Your task to perform on an android device: Empty the shopping cart on walmart.com. Image 0: 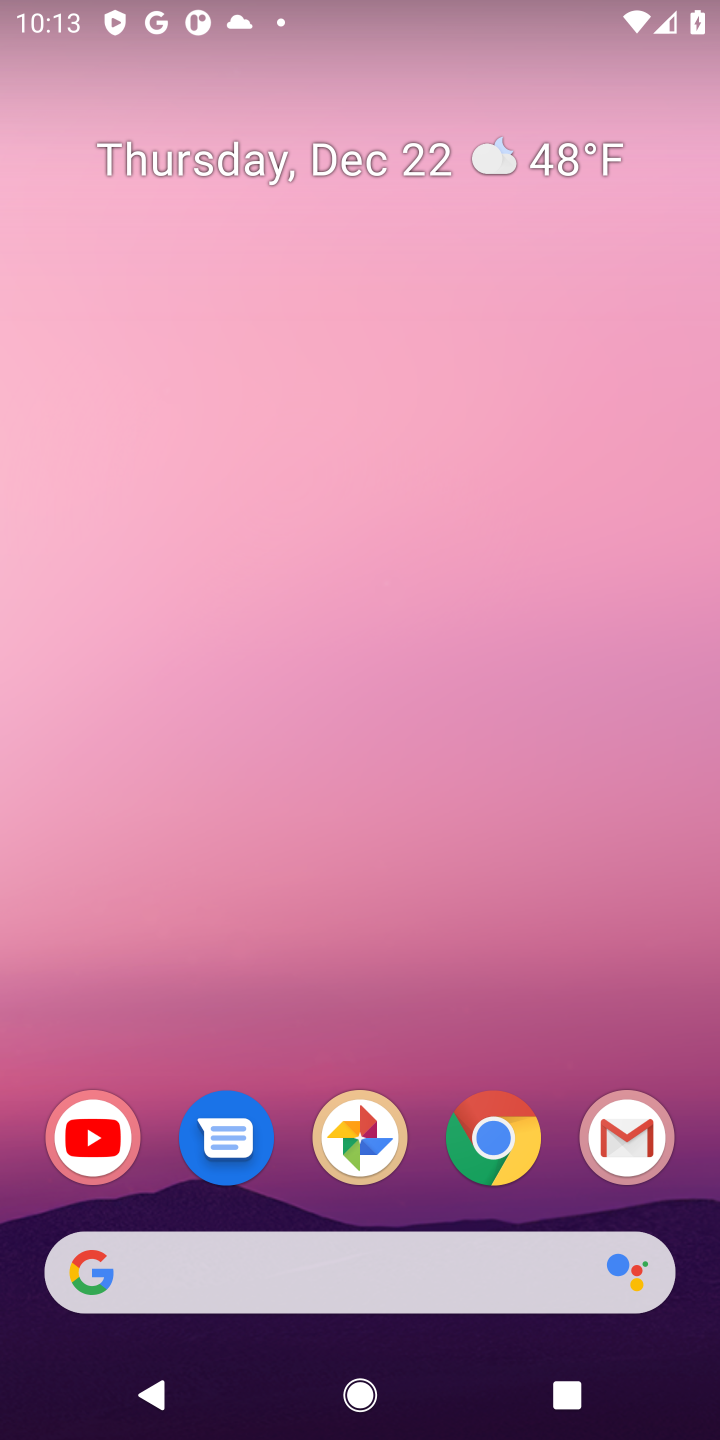
Step 0: click (493, 1136)
Your task to perform on an android device: Empty the shopping cart on walmart.com. Image 1: 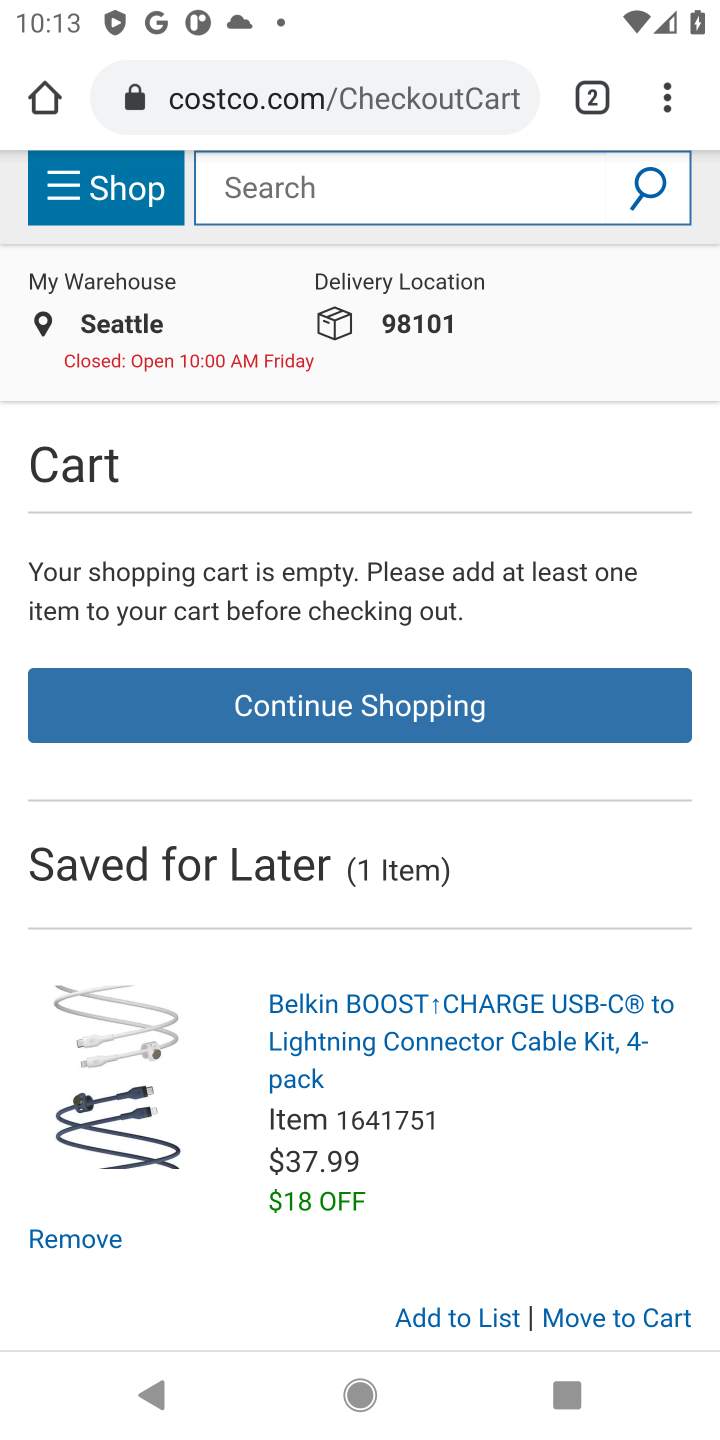
Step 1: click (276, 98)
Your task to perform on an android device: Empty the shopping cart on walmart.com. Image 2: 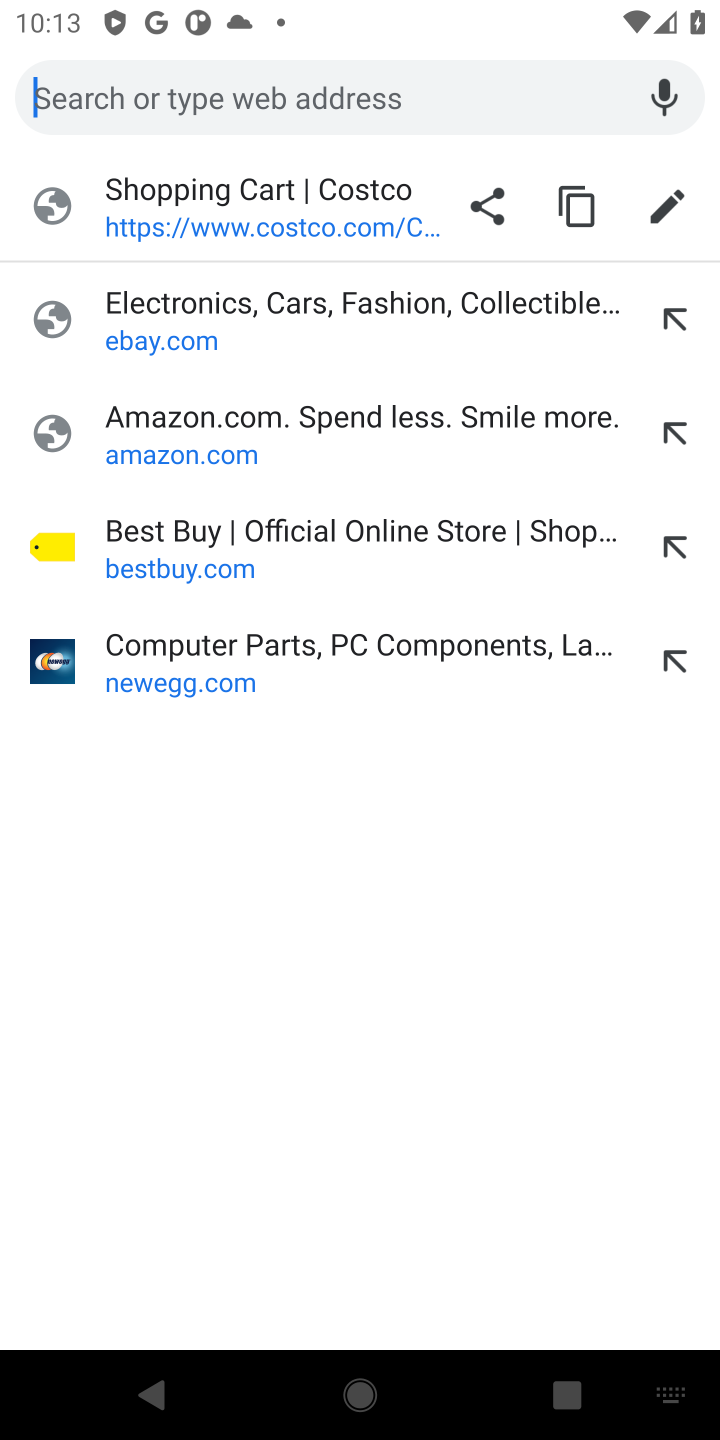
Step 2: type "walmart.com"
Your task to perform on an android device: Empty the shopping cart on walmart.com. Image 3: 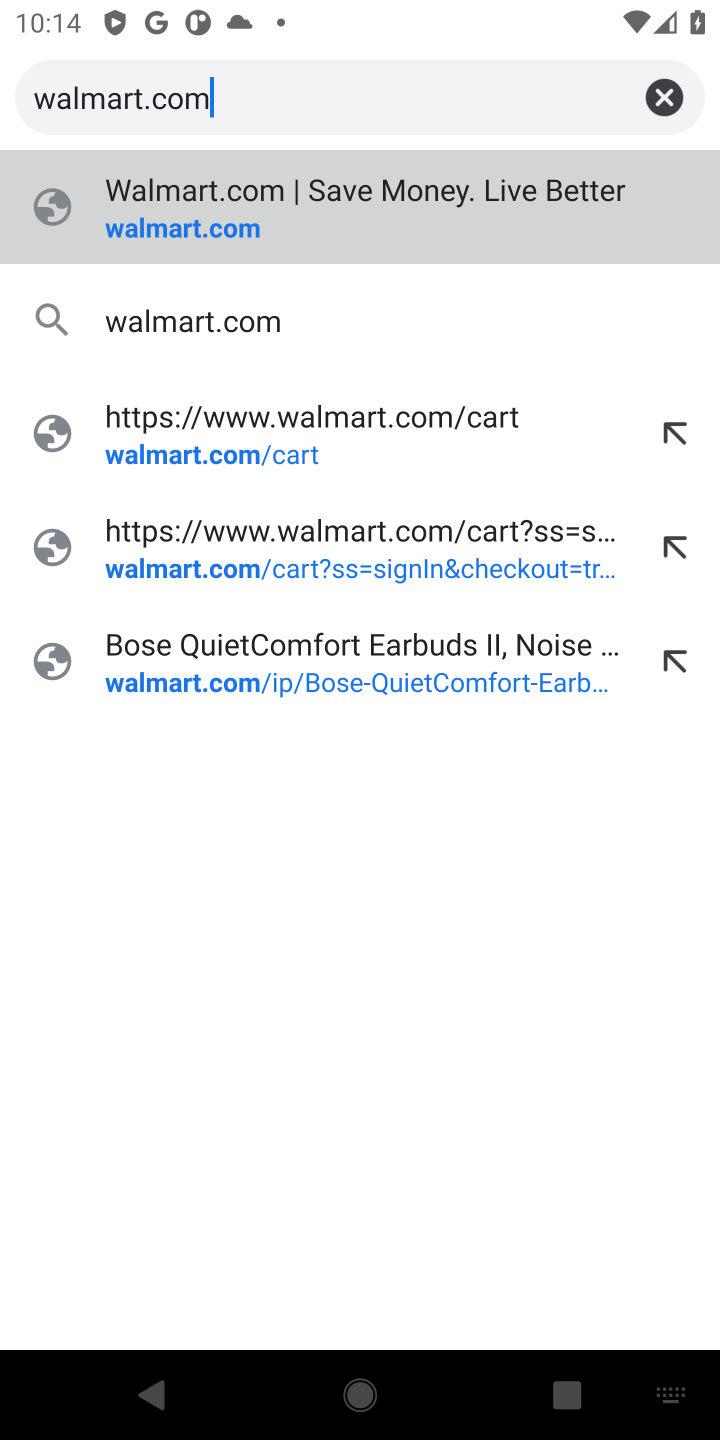
Step 3: click (147, 325)
Your task to perform on an android device: Empty the shopping cart on walmart.com. Image 4: 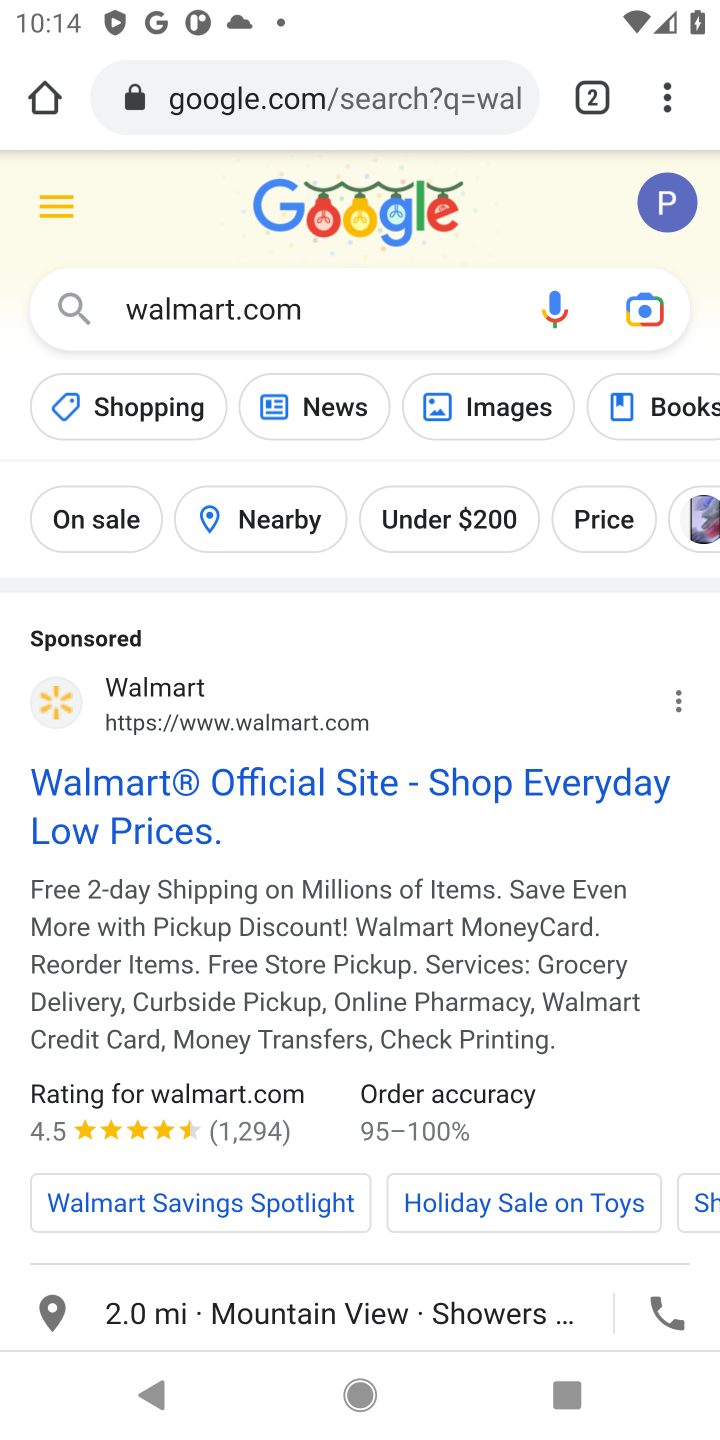
Step 4: click (168, 715)
Your task to perform on an android device: Empty the shopping cart on walmart.com. Image 5: 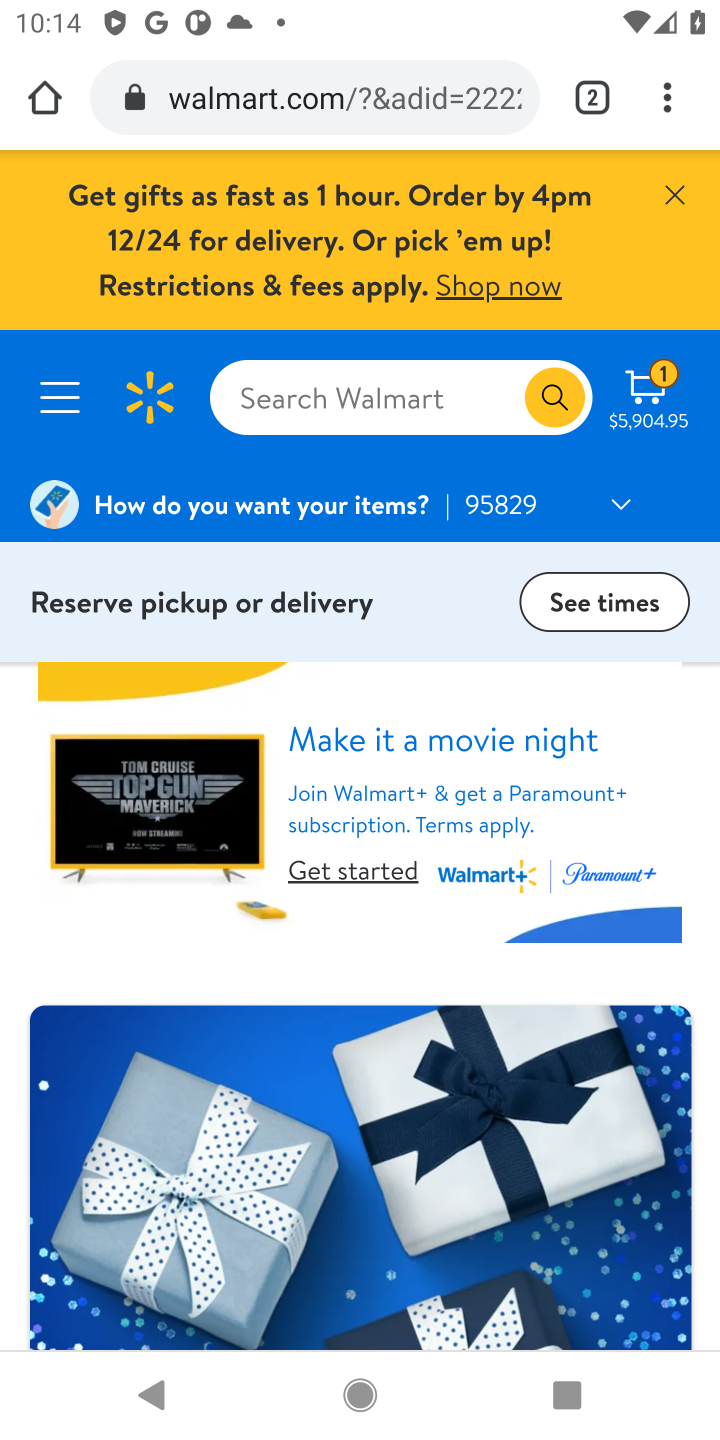
Step 5: click (668, 195)
Your task to perform on an android device: Empty the shopping cart on walmart.com. Image 6: 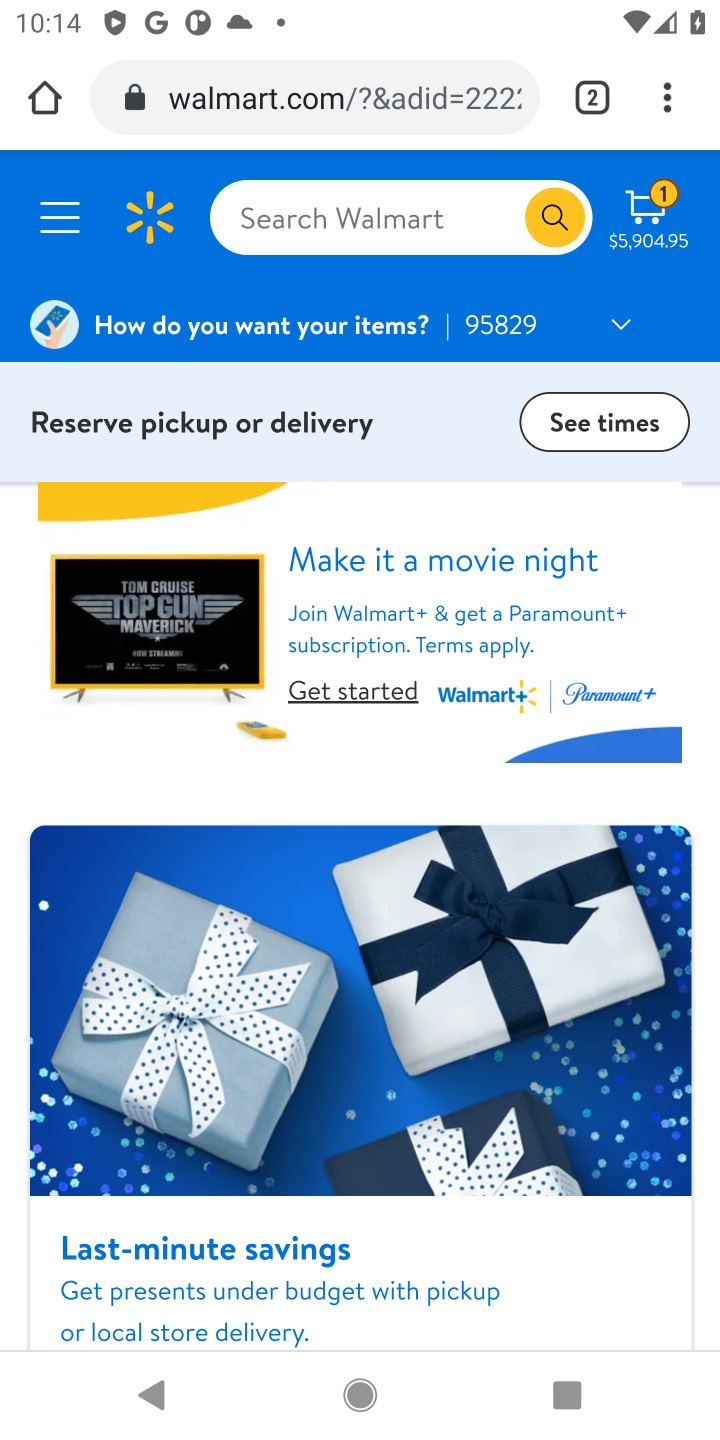
Step 6: click (650, 229)
Your task to perform on an android device: Empty the shopping cart on walmart.com. Image 7: 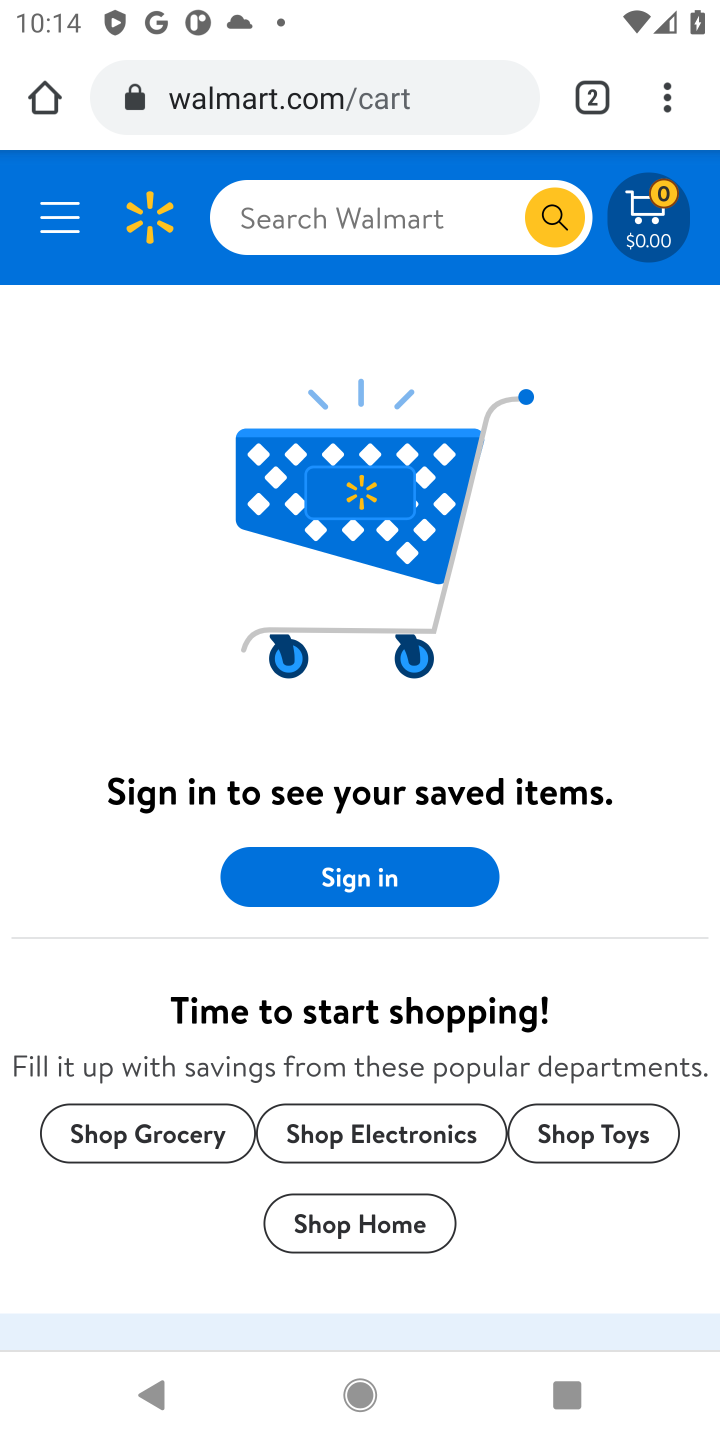
Step 7: click (653, 214)
Your task to perform on an android device: Empty the shopping cart on walmart.com. Image 8: 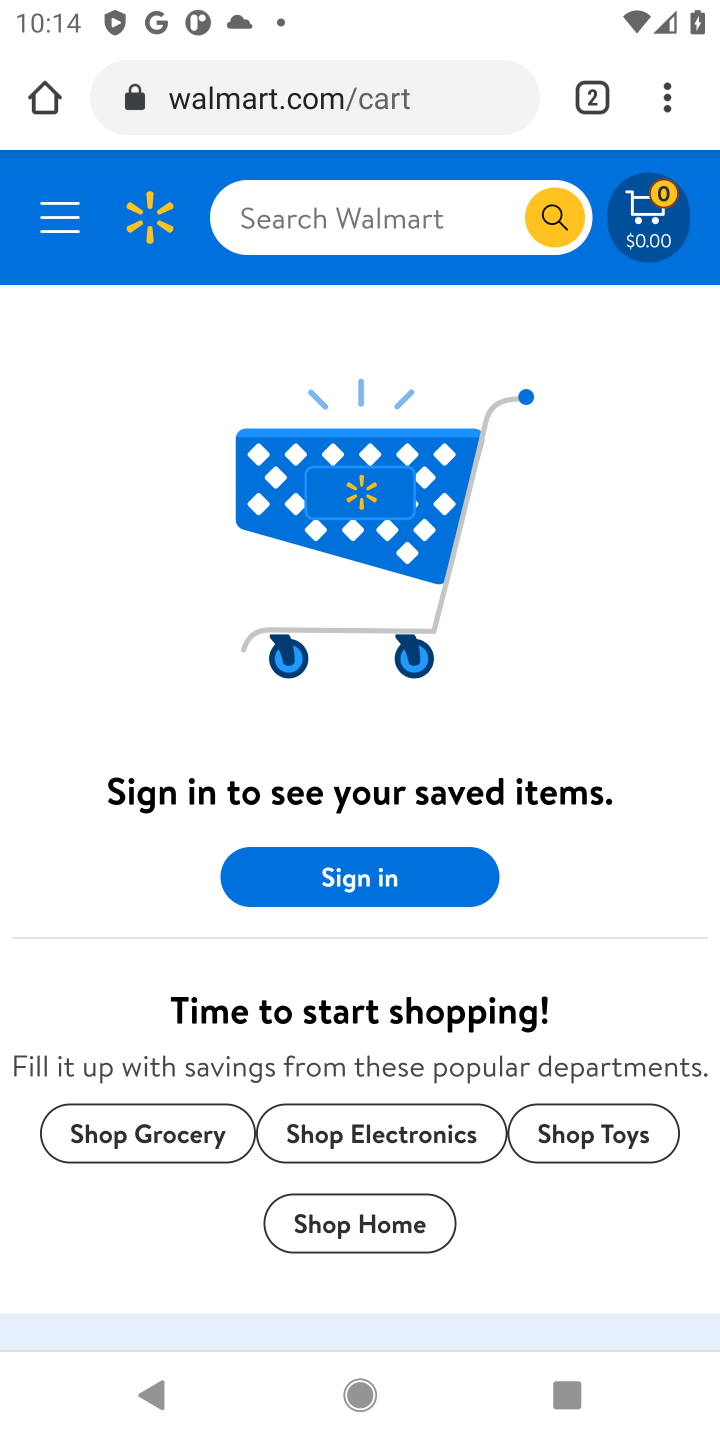
Step 8: task complete